Your task to perform on an android device: all mails in gmail Image 0: 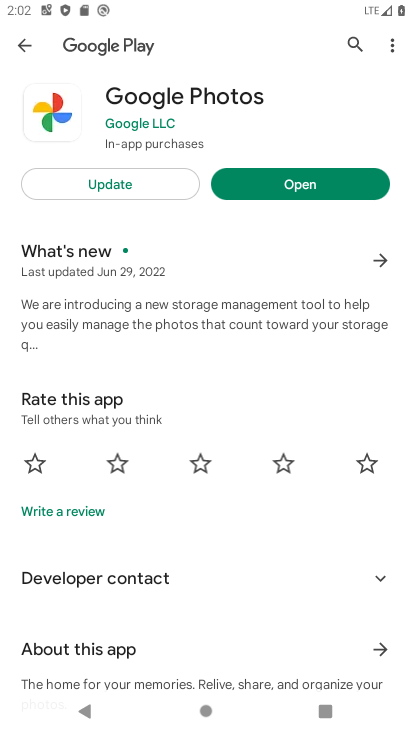
Step 0: press home button
Your task to perform on an android device: all mails in gmail Image 1: 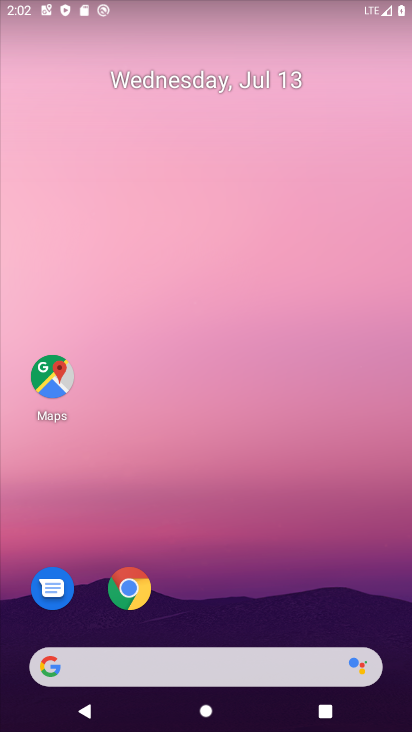
Step 1: drag from (404, 713) to (370, 301)
Your task to perform on an android device: all mails in gmail Image 2: 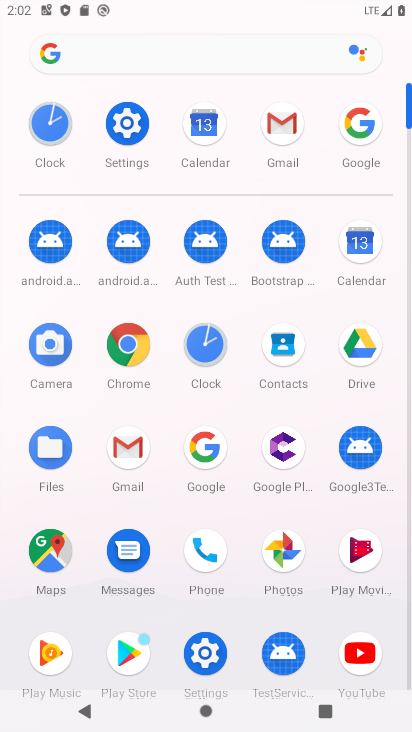
Step 2: click (111, 435)
Your task to perform on an android device: all mails in gmail Image 3: 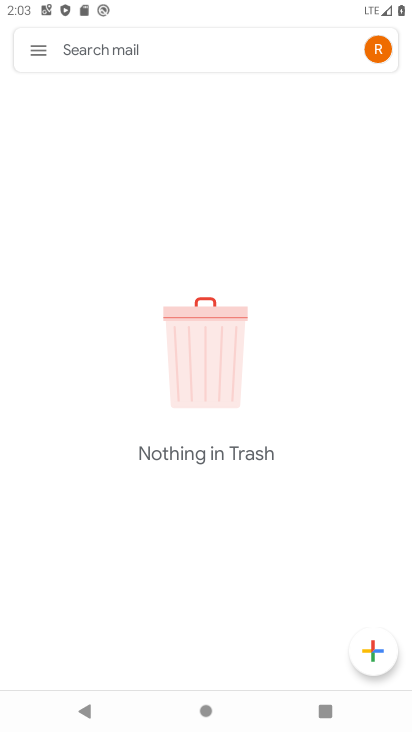
Step 3: click (38, 52)
Your task to perform on an android device: all mails in gmail Image 4: 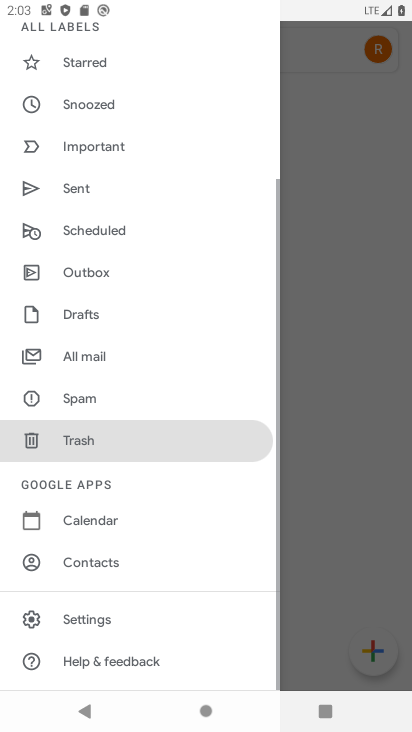
Step 4: click (69, 353)
Your task to perform on an android device: all mails in gmail Image 5: 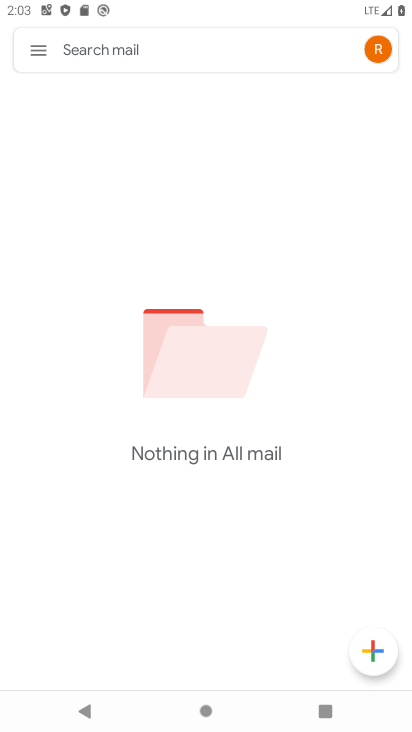
Step 5: task complete